Your task to perform on an android device: Open wifi settings Image 0: 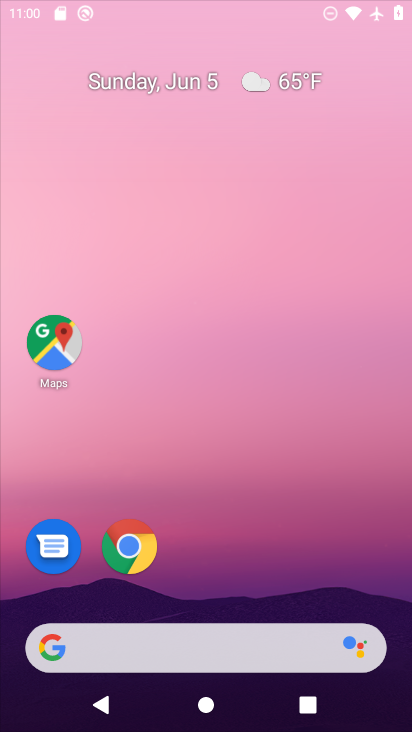
Step 0: click (245, 659)
Your task to perform on an android device: Open wifi settings Image 1: 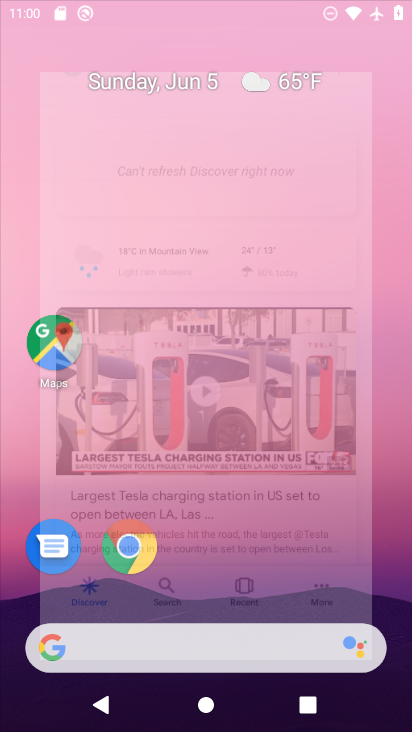
Step 1: drag from (213, 574) to (250, 235)
Your task to perform on an android device: Open wifi settings Image 2: 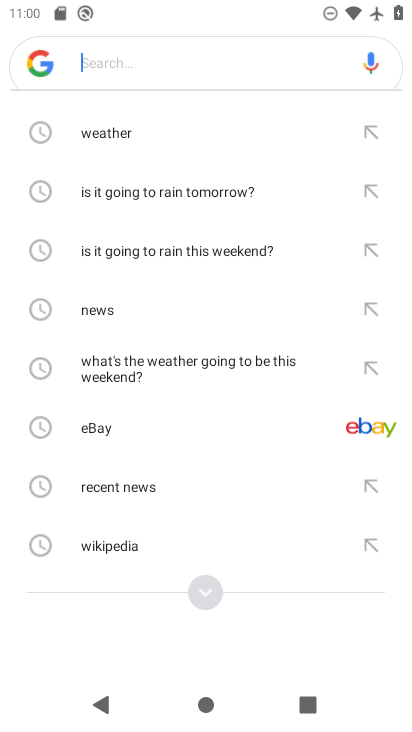
Step 2: press home button
Your task to perform on an android device: Open wifi settings Image 3: 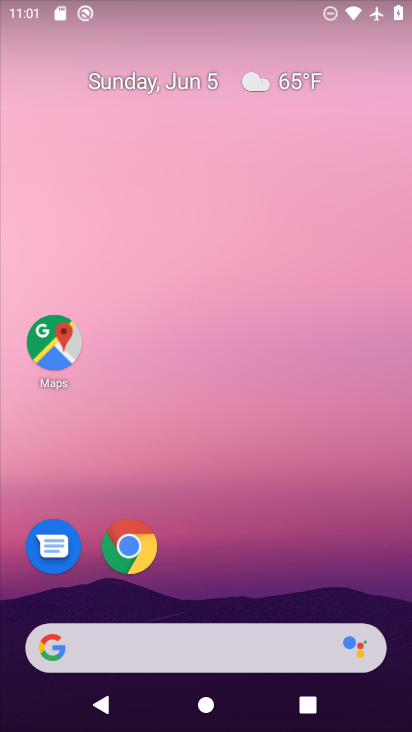
Step 3: click (250, 39)
Your task to perform on an android device: Open wifi settings Image 4: 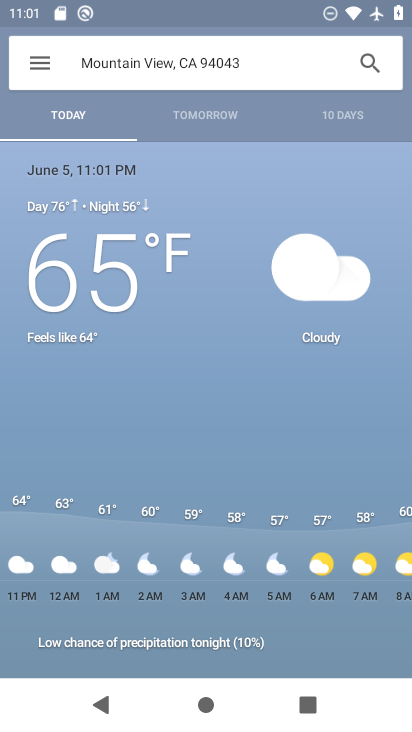
Step 4: drag from (267, 490) to (299, 64)
Your task to perform on an android device: Open wifi settings Image 5: 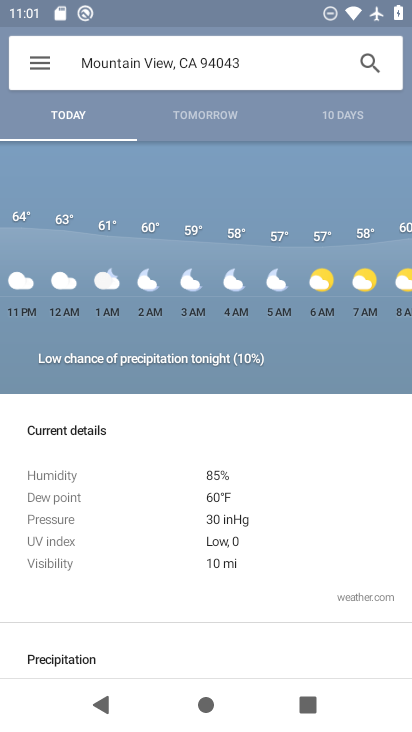
Step 5: press home button
Your task to perform on an android device: Open wifi settings Image 6: 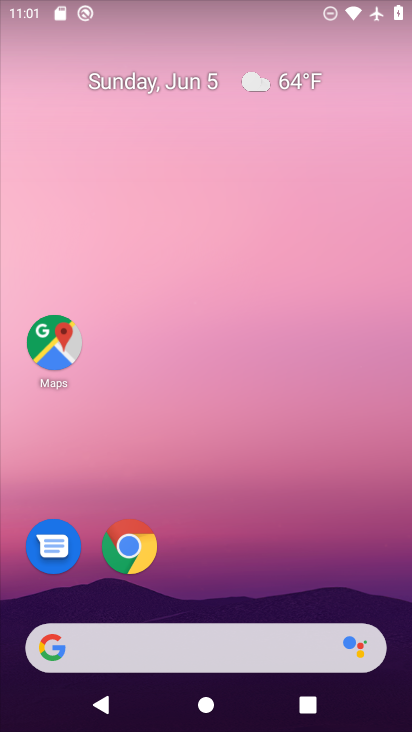
Step 6: drag from (180, 603) to (203, 245)
Your task to perform on an android device: Open wifi settings Image 7: 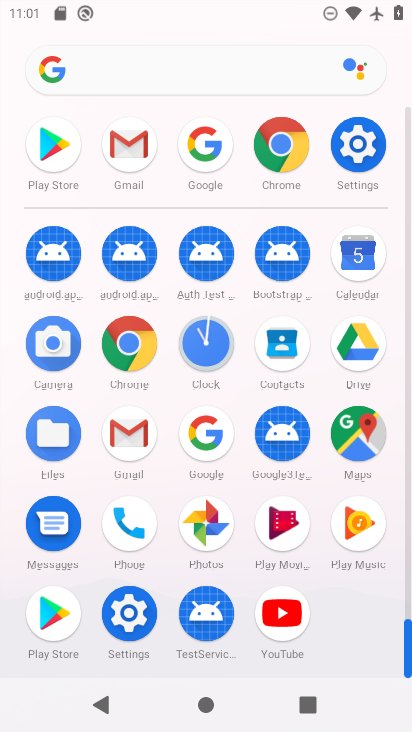
Step 7: click (352, 154)
Your task to perform on an android device: Open wifi settings Image 8: 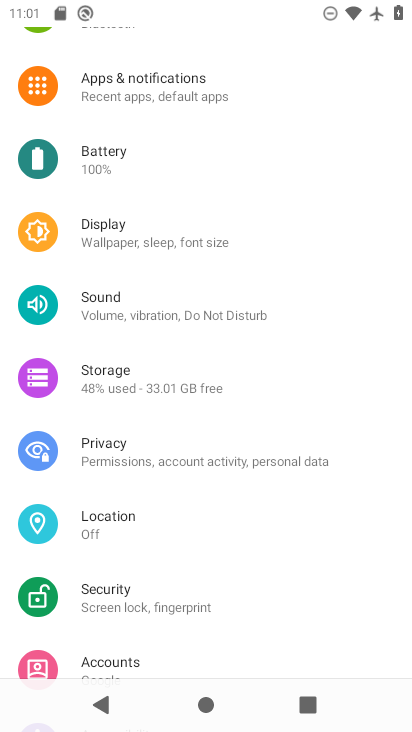
Step 8: drag from (255, 502) to (275, 174)
Your task to perform on an android device: Open wifi settings Image 9: 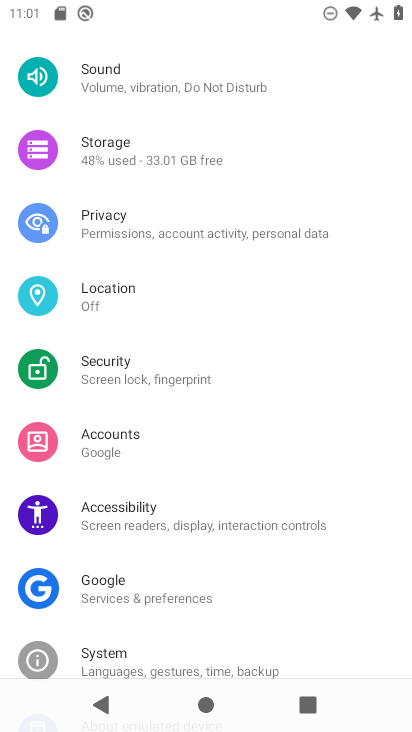
Step 9: drag from (198, 558) to (219, 146)
Your task to perform on an android device: Open wifi settings Image 10: 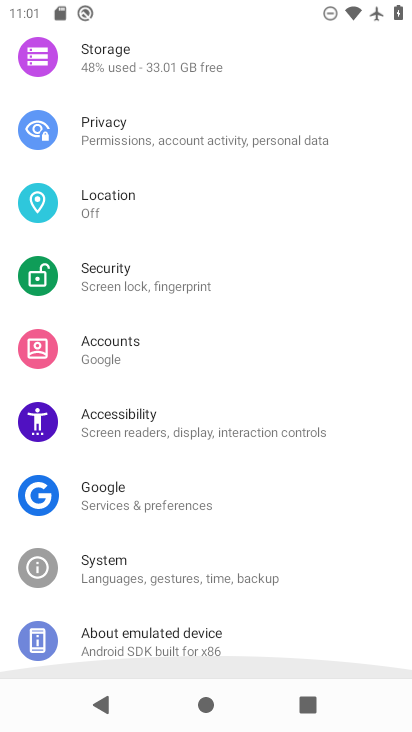
Step 10: drag from (243, 285) to (246, 730)
Your task to perform on an android device: Open wifi settings Image 11: 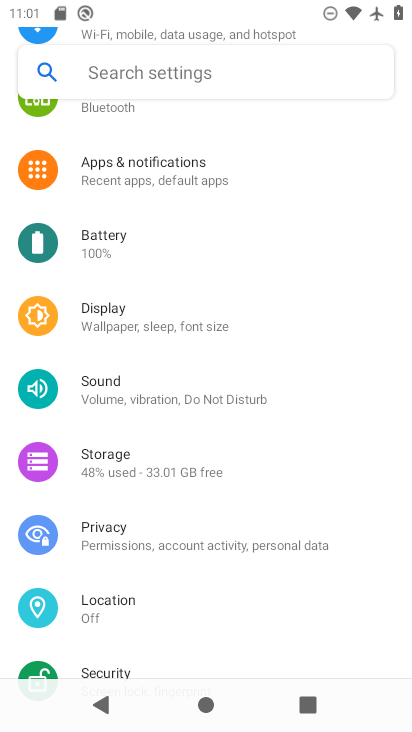
Step 11: drag from (222, 169) to (341, 714)
Your task to perform on an android device: Open wifi settings Image 12: 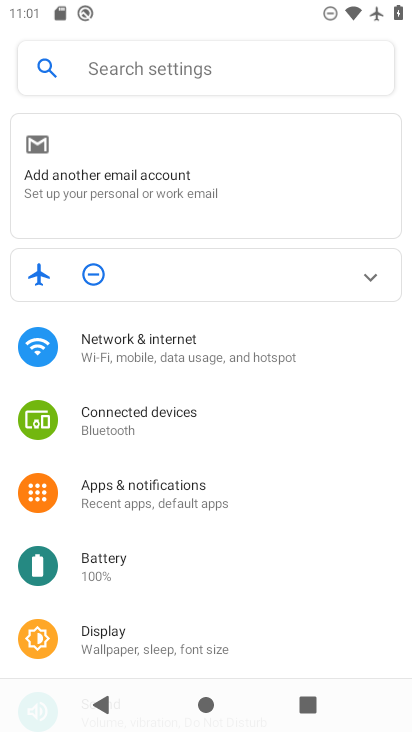
Step 12: click (139, 350)
Your task to perform on an android device: Open wifi settings Image 13: 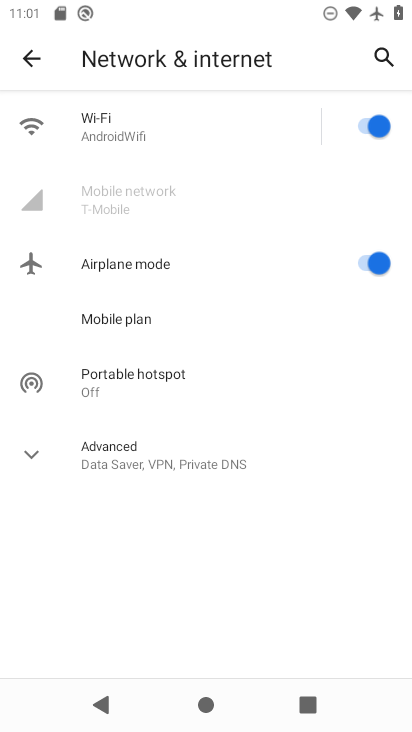
Step 13: click (191, 146)
Your task to perform on an android device: Open wifi settings Image 14: 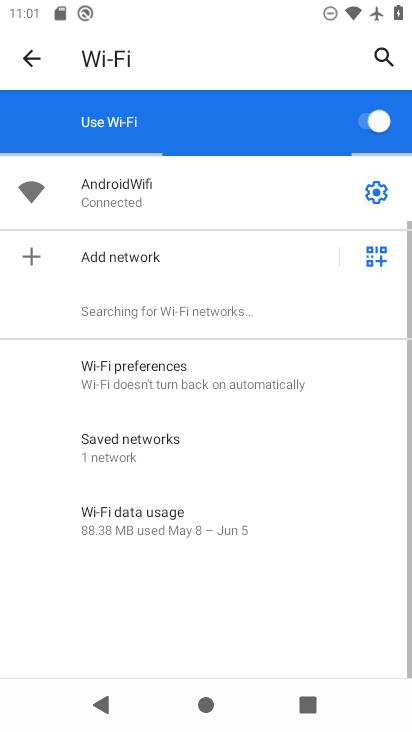
Step 14: drag from (182, 531) to (219, 226)
Your task to perform on an android device: Open wifi settings Image 15: 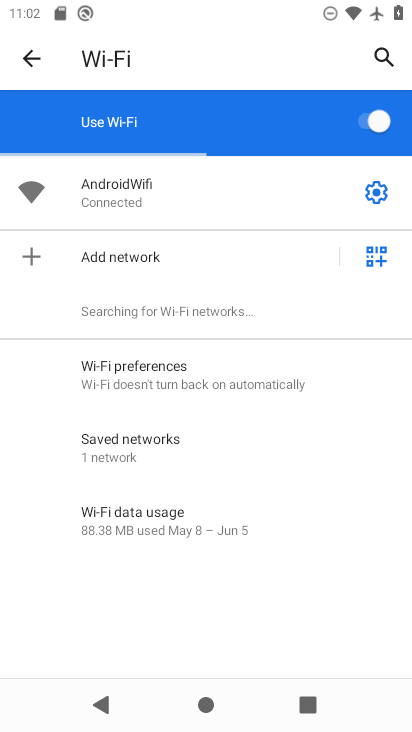
Step 15: drag from (270, 489) to (316, 237)
Your task to perform on an android device: Open wifi settings Image 16: 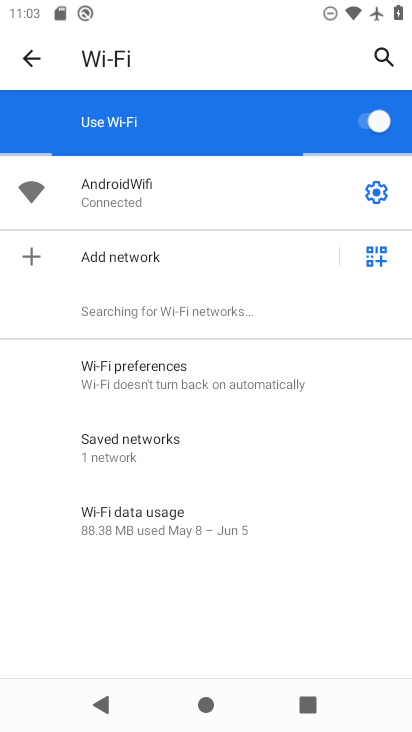
Step 16: drag from (216, 579) to (235, 336)
Your task to perform on an android device: Open wifi settings Image 17: 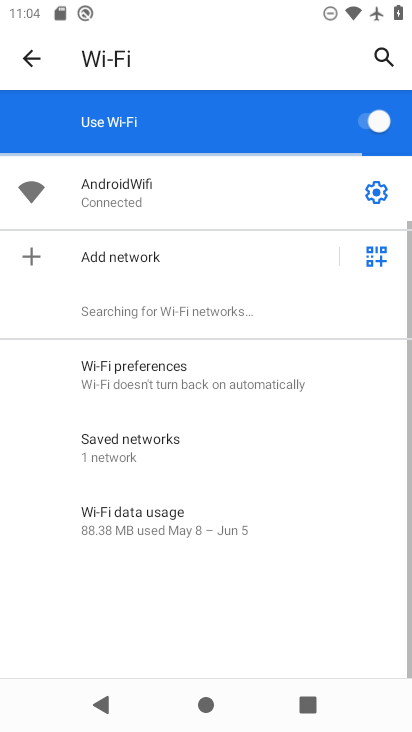
Step 17: click (377, 194)
Your task to perform on an android device: Open wifi settings Image 18: 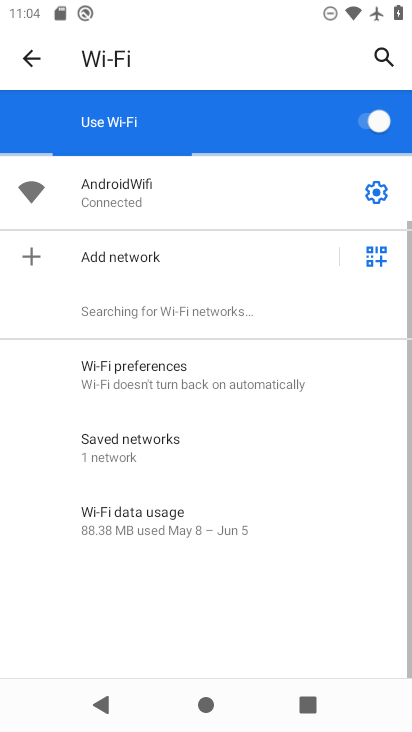
Step 18: task complete